Your task to perform on an android device: Is it going to rain this weekend? Image 0: 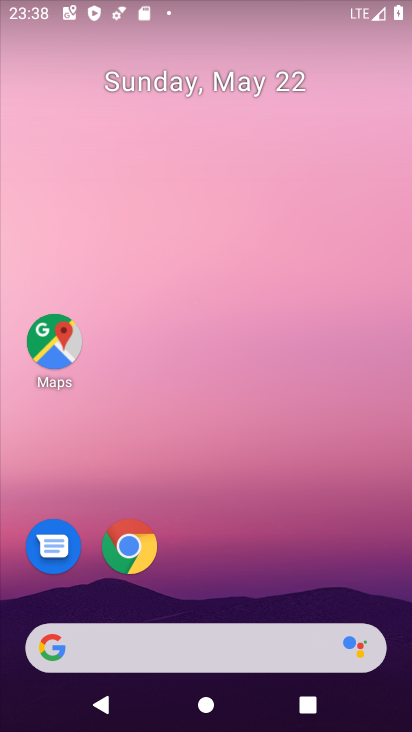
Step 0: click (162, 3)
Your task to perform on an android device: Is it going to rain this weekend? Image 1: 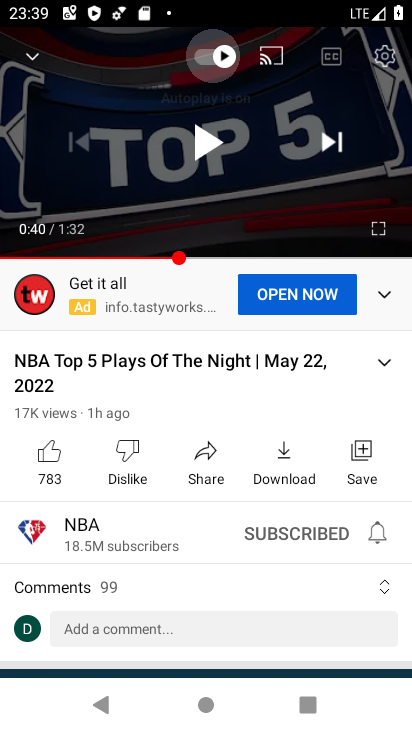
Step 1: drag from (253, 618) to (276, 16)
Your task to perform on an android device: Is it going to rain this weekend? Image 2: 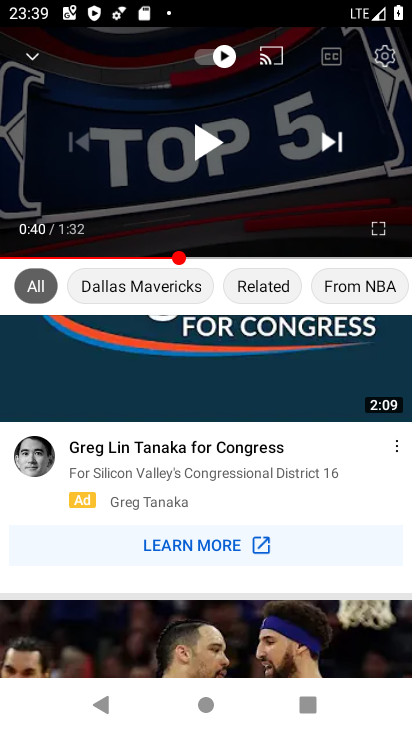
Step 2: drag from (202, 618) to (323, 215)
Your task to perform on an android device: Is it going to rain this weekend? Image 3: 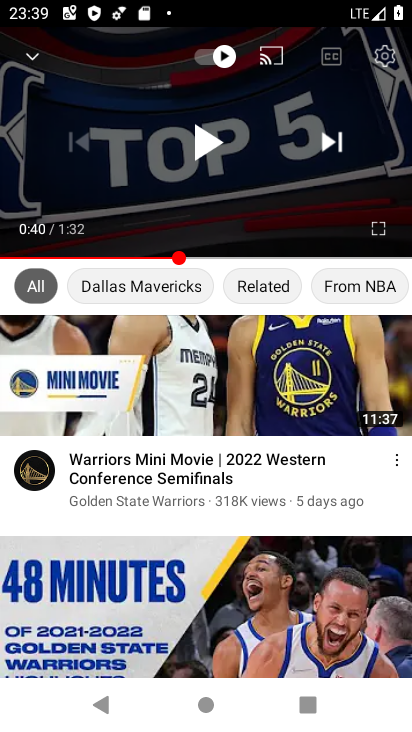
Step 3: press home button
Your task to perform on an android device: Is it going to rain this weekend? Image 4: 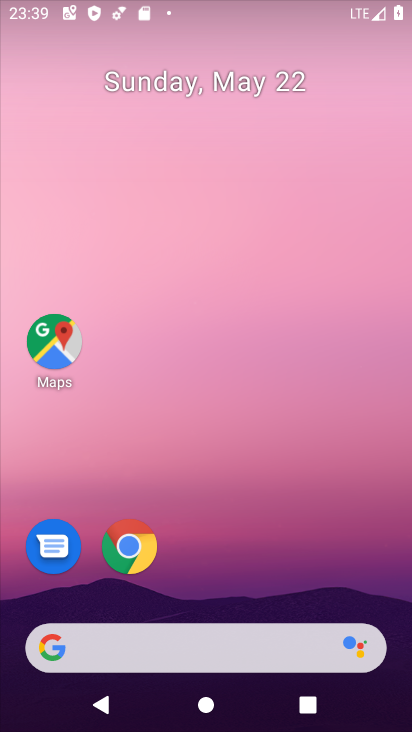
Step 4: drag from (187, 635) to (311, 239)
Your task to perform on an android device: Is it going to rain this weekend? Image 5: 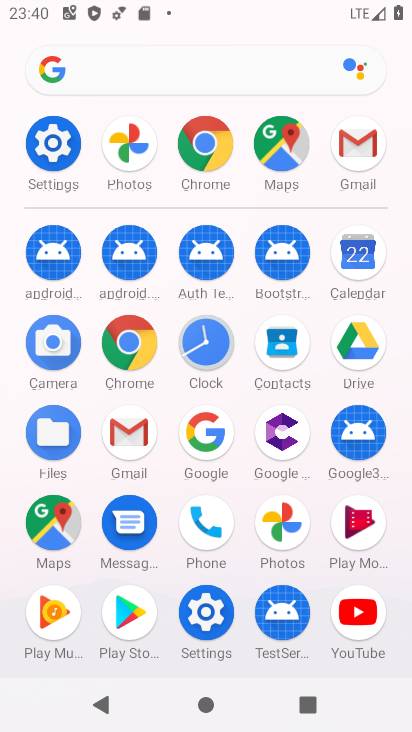
Step 5: click (177, 81)
Your task to perform on an android device: Is it going to rain this weekend? Image 6: 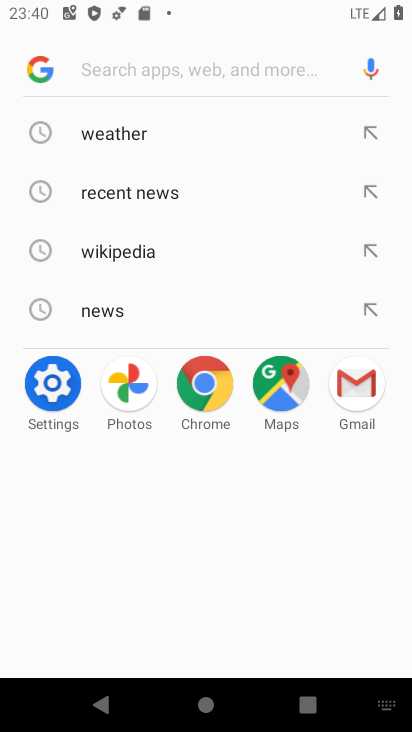
Step 6: type "rain this weekend"
Your task to perform on an android device: Is it going to rain this weekend? Image 7: 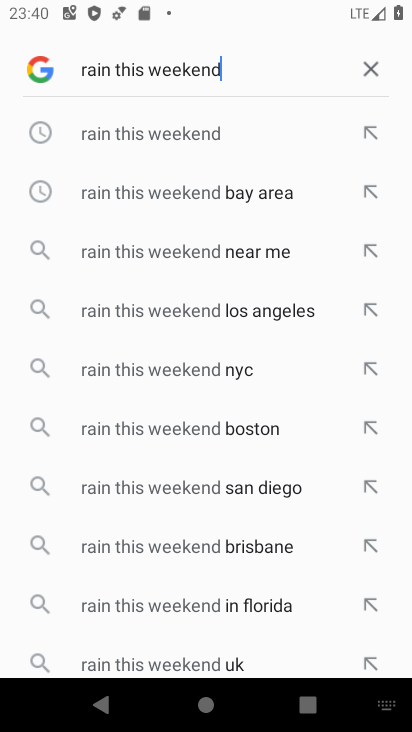
Step 7: click (138, 117)
Your task to perform on an android device: Is it going to rain this weekend? Image 8: 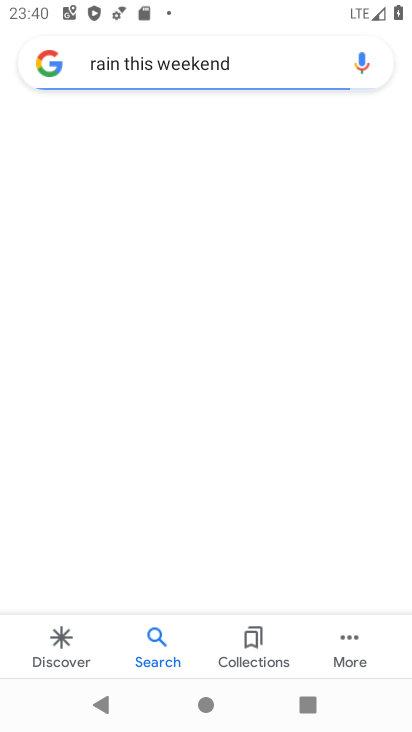
Step 8: task complete